Your task to perform on an android device: Open the Play Movies app and select the watchlist tab. Image 0: 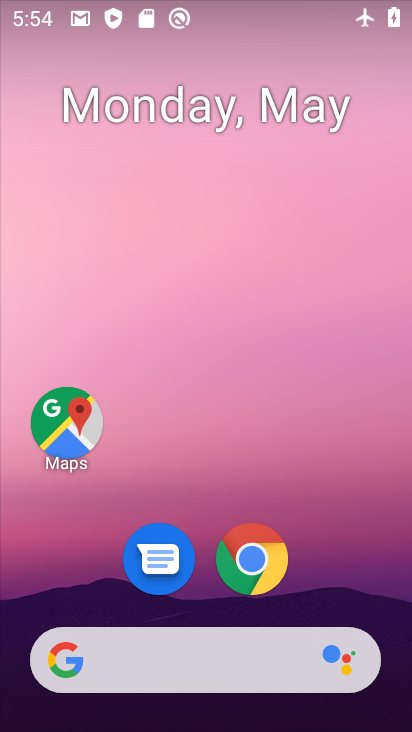
Step 0: drag from (335, 525) to (225, 108)
Your task to perform on an android device: Open the Play Movies app and select the watchlist tab. Image 1: 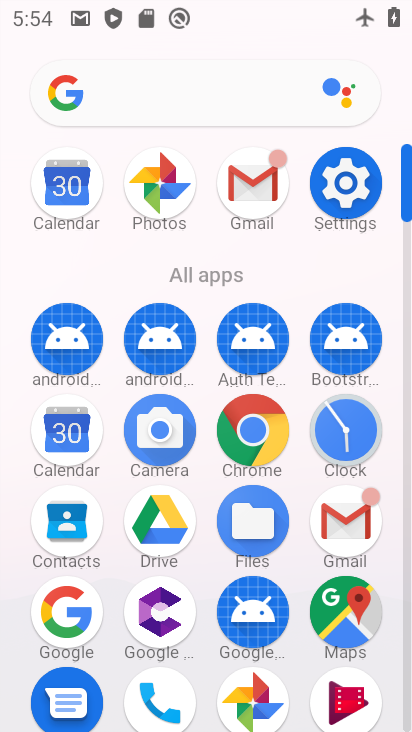
Step 1: click (355, 697)
Your task to perform on an android device: Open the Play Movies app and select the watchlist tab. Image 2: 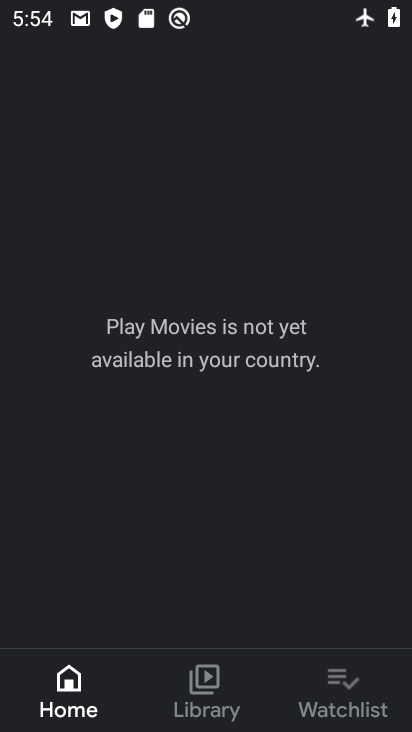
Step 2: click (355, 697)
Your task to perform on an android device: Open the Play Movies app and select the watchlist tab. Image 3: 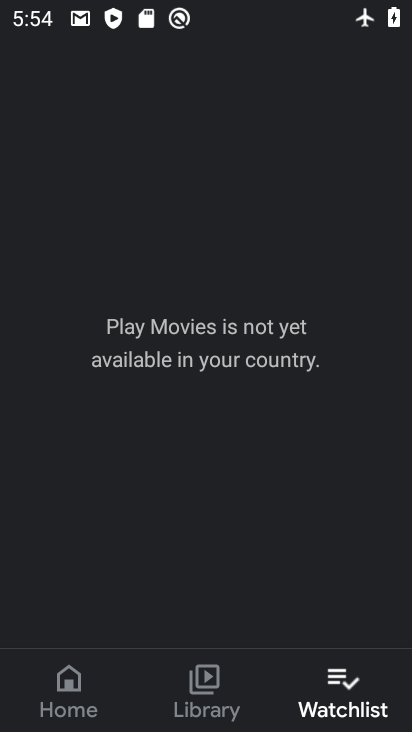
Step 3: task complete